Your task to perform on an android device: Go to Yahoo.com Image 0: 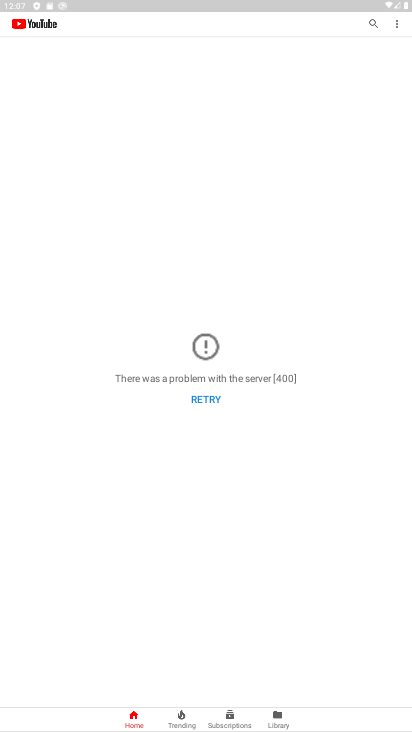
Step 0: press home button
Your task to perform on an android device: Go to Yahoo.com Image 1: 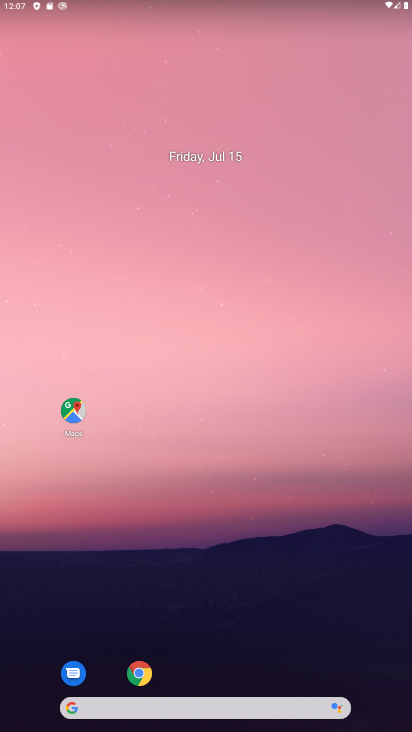
Step 1: click (134, 671)
Your task to perform on an android device: Go to Yahoo.com Image 2: 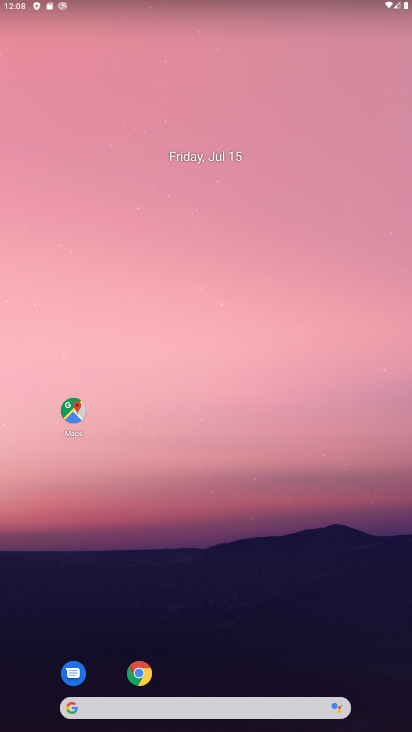
Step 2: click (135, 662)
Your task to perform on an android device: Go to Yahoo.com Image 3: 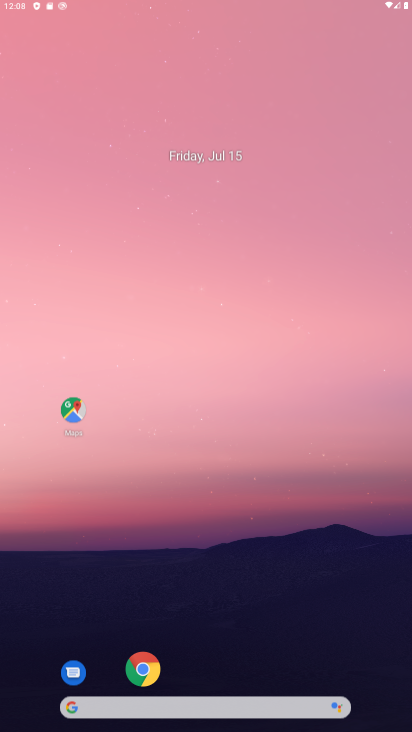
Step 3: click (136, 680)
Your task to perform on an android device: Go to Yahoo.com Image 4: 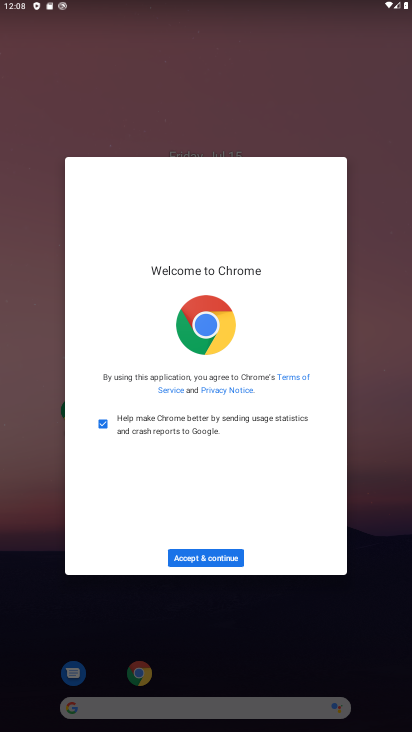
Step 4: click (245, 561)
Your task to perform on an android device: Go to Yahoo.com Image 5: 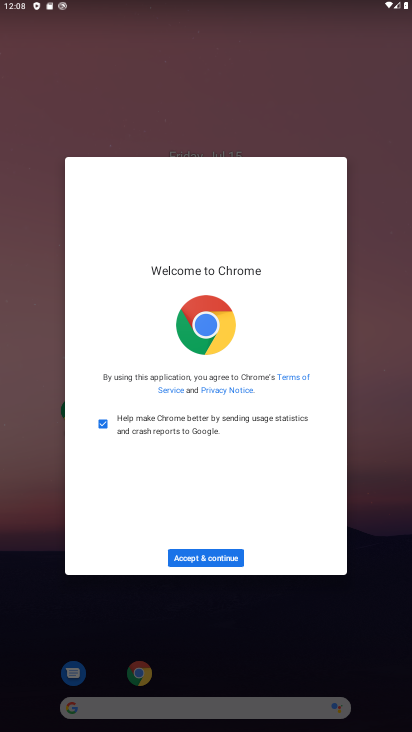
Step 5: click (236, 560)
Your task to perform on an android device: Go to Yahoo.com Image 6: 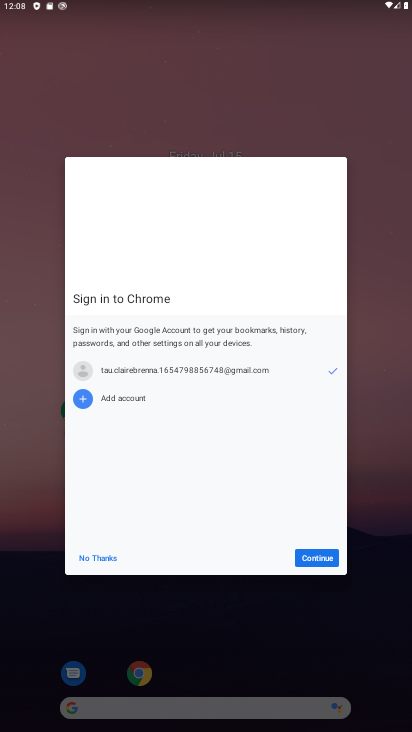
Step 6: click (315, 560)
Your task to perform on an android device: Go to Yahoo.com Image 7: 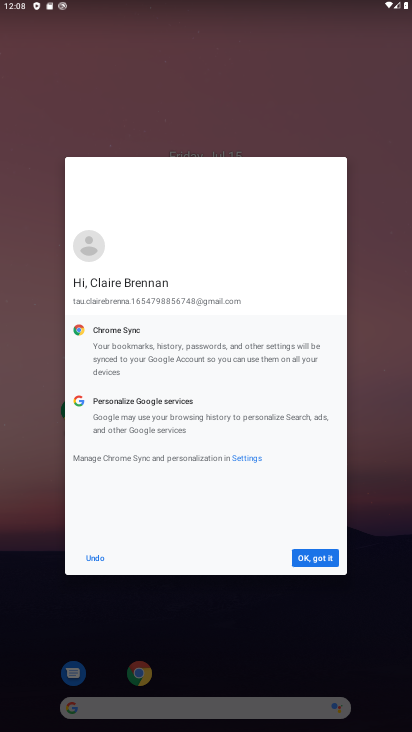
Step 7: click (315, 560)
Your task to perform on an android device: Go to Yahoo.com Image 8: 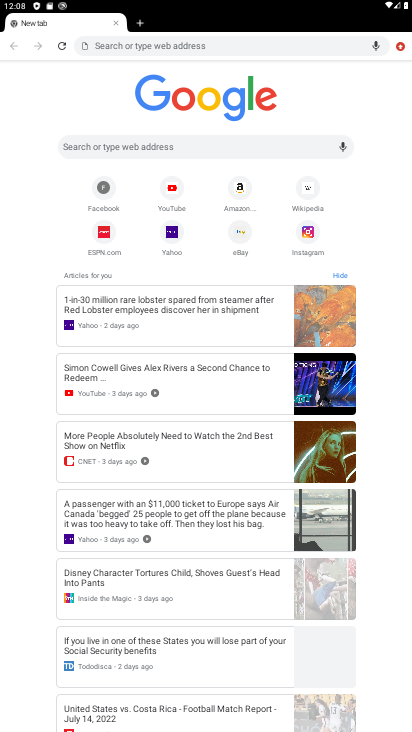
Step 8: click (171, 237)
Your task to perform on an android device: Go to Yahoo.com Image 9: 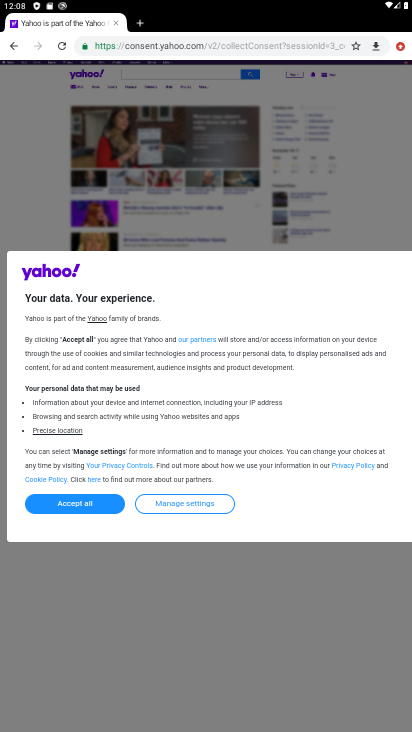
Step 9: click (79, 507)
Your task to perform on an android device: Go to Yahoo.com Image 10: 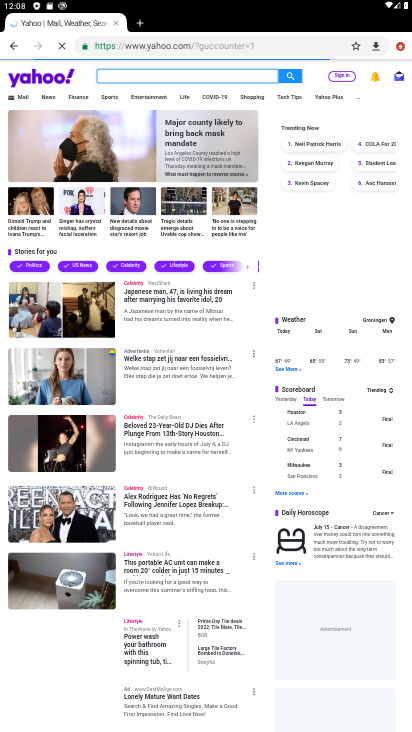
Step 10: task complete